Your task to perform on an android device: change the clock display to analog Image 0: 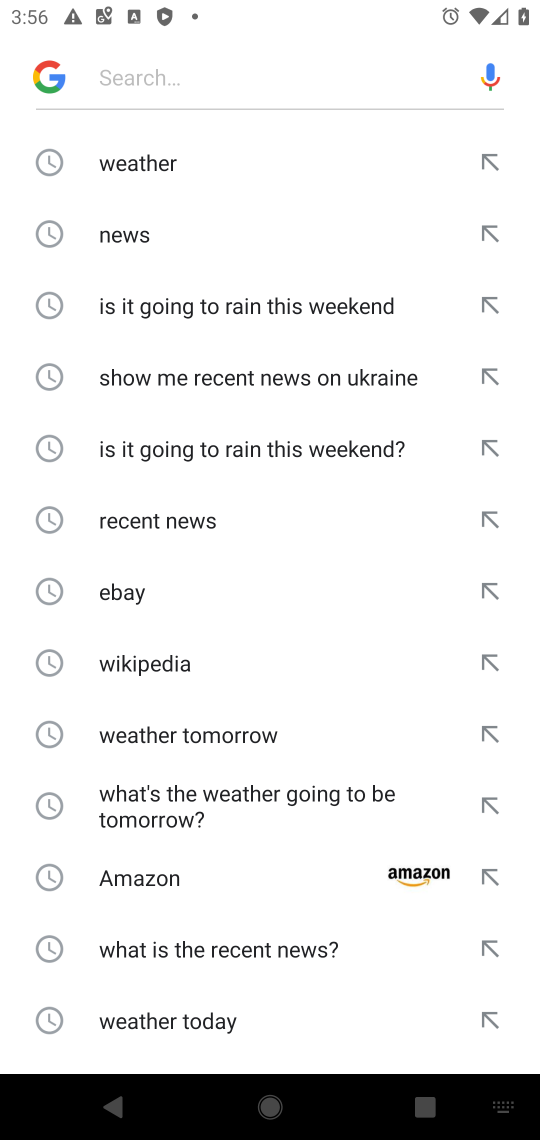
Step 0: press back button
Your task to perform on an android device: change the clock display to analog Image 1: 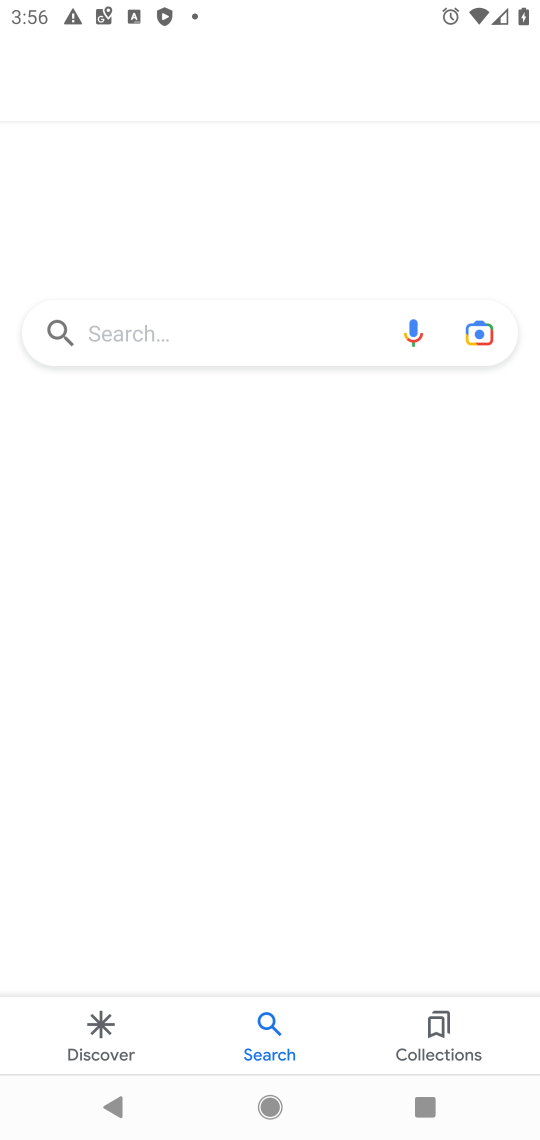
Step 1: press back button
Your task to perform on an android device: change the clock display to analog Image 2: 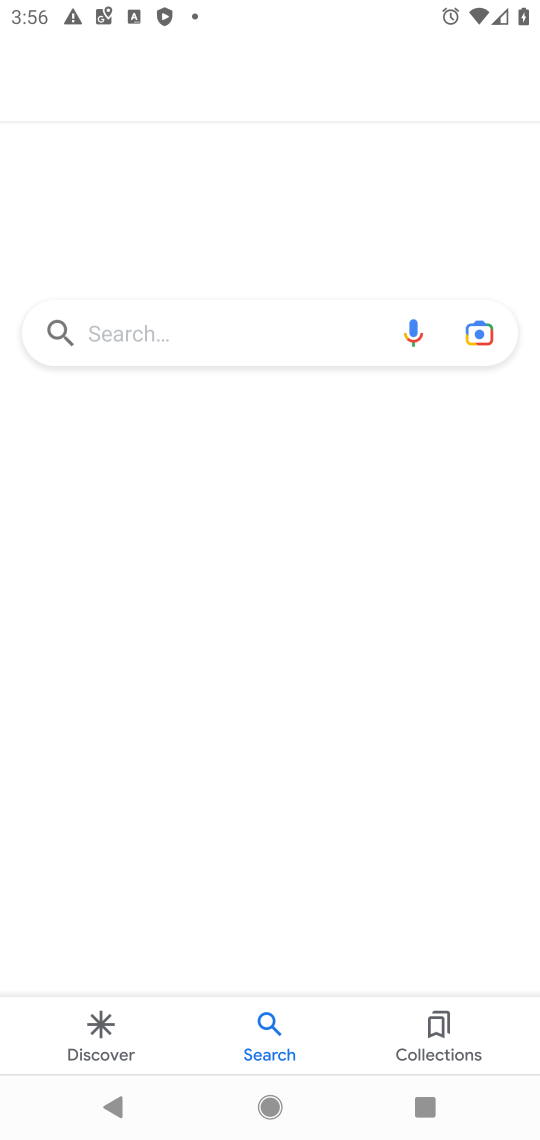
Step 2: press back button
Your task to perform on an android device: change the clock display to analog Image 3: 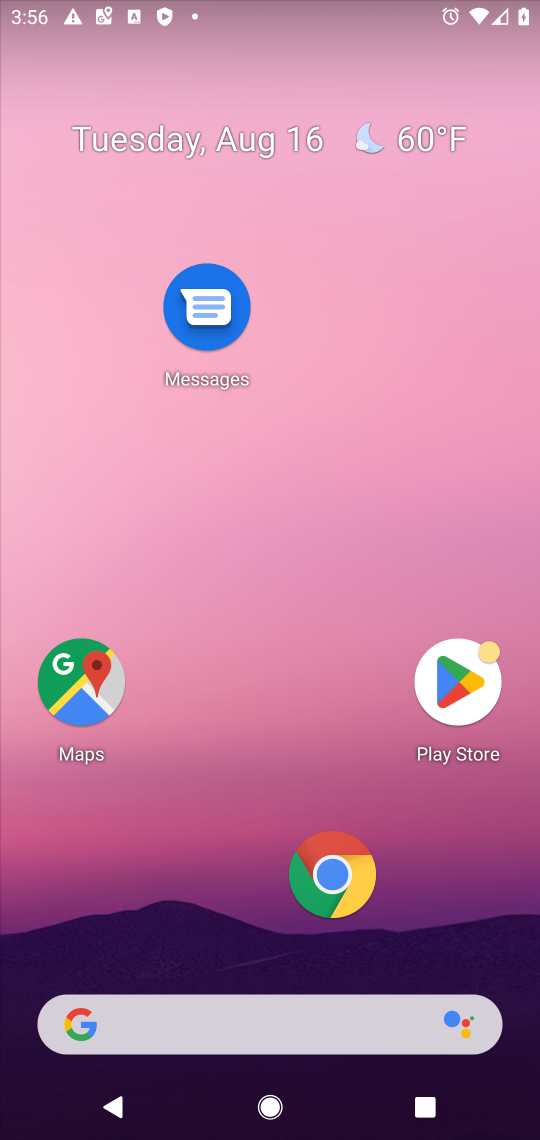
Step 3: press back button
Your task to perform on an android device: change the clock display to analog Image 4: 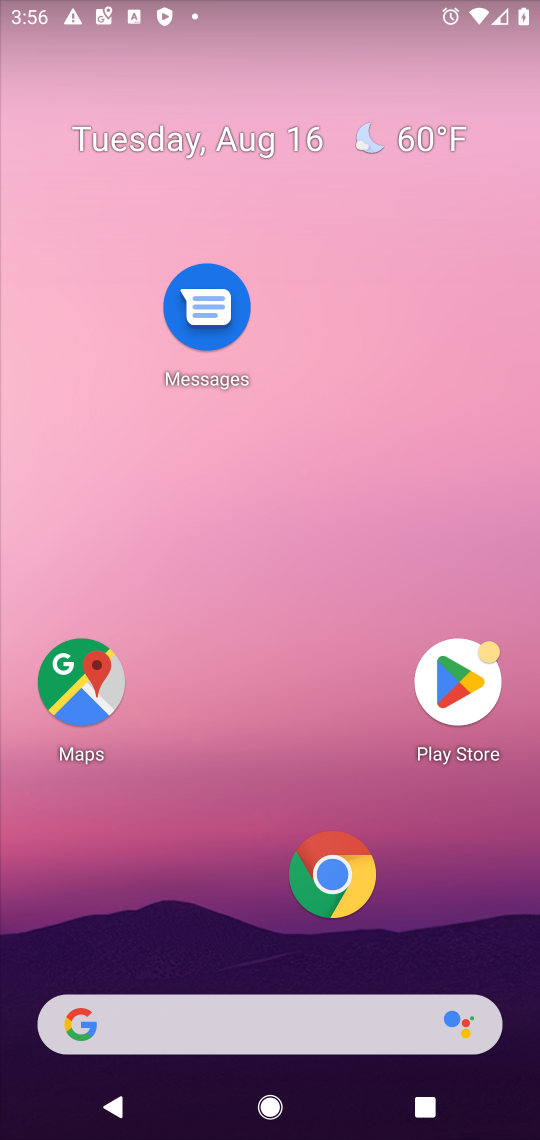
Step 4: drag from (174, 613) to (147, 135)
Your task to perform on an android device: change the clock display to analog Image 5: 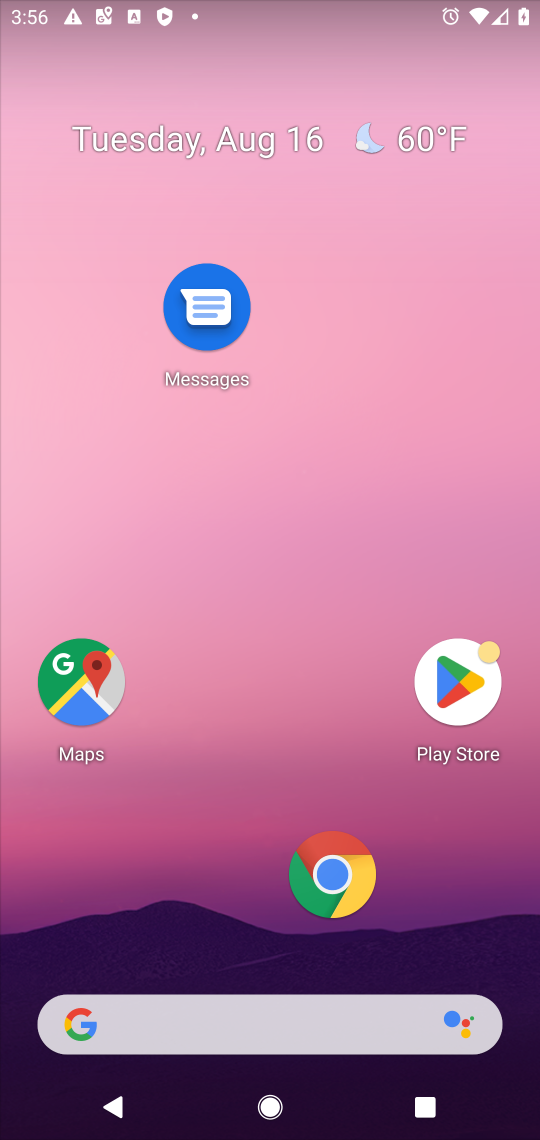
Step 5: drag from (228, 889) to (210, 0)
Your task to perform on an android device: change the clock display to analog Image 6: 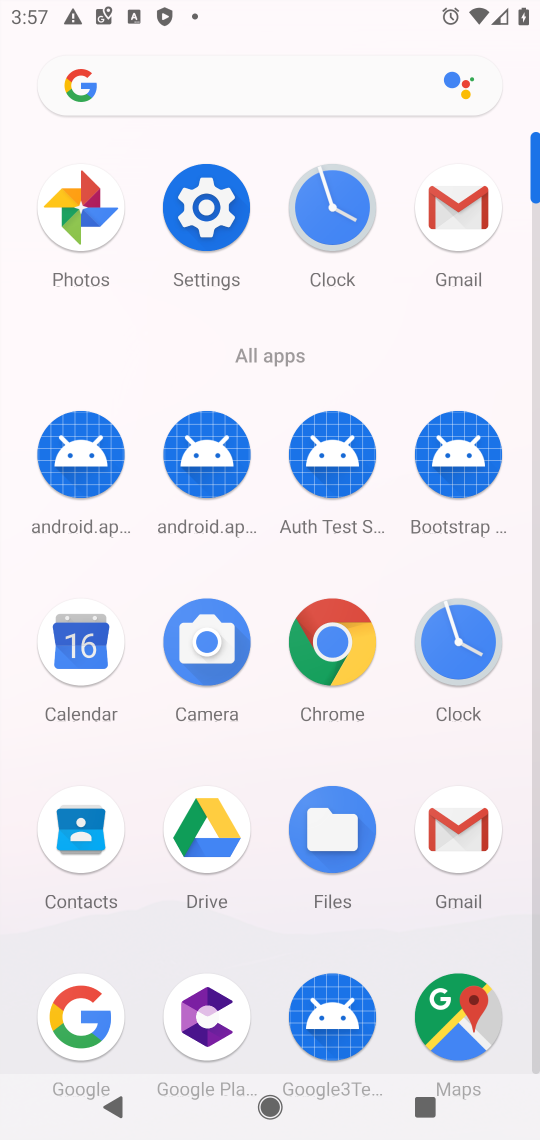
Step 6: click (331, 211)
Your task to perform on an android device: change the clock display to analog Image 7: 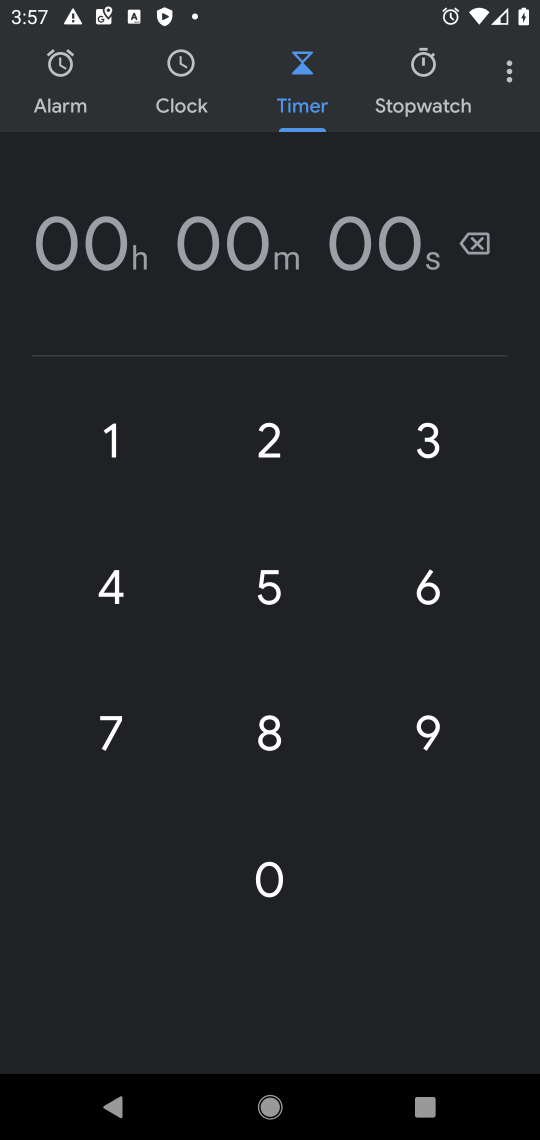
Step 7: click (507, 63)
Your task to perform on an android device: change the clock display to analog Image 8: 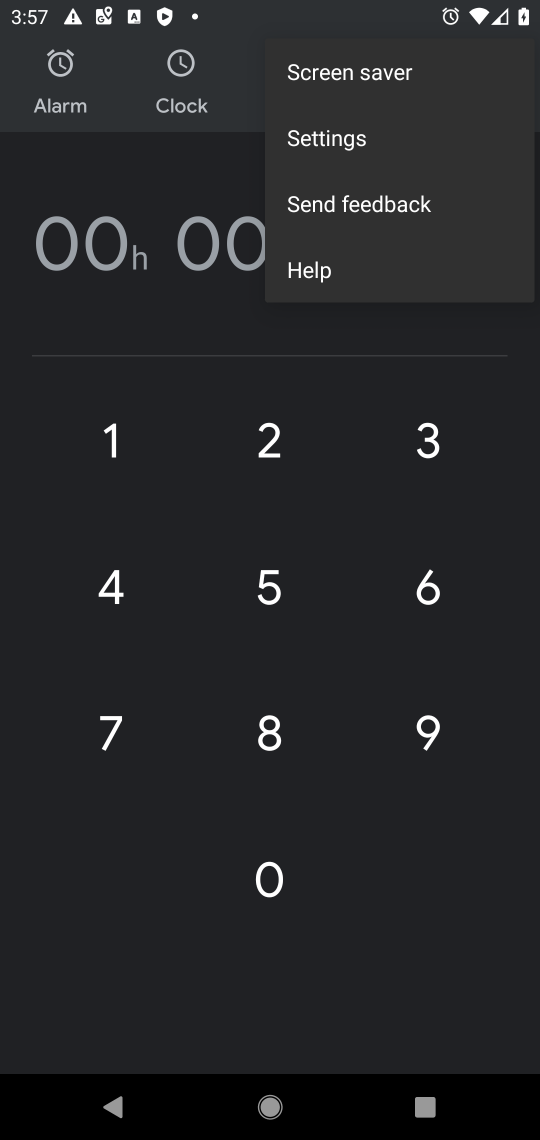
Step 8: click (353, 134)
Your task to perform on an android device: change the clock display to analog Image 9: 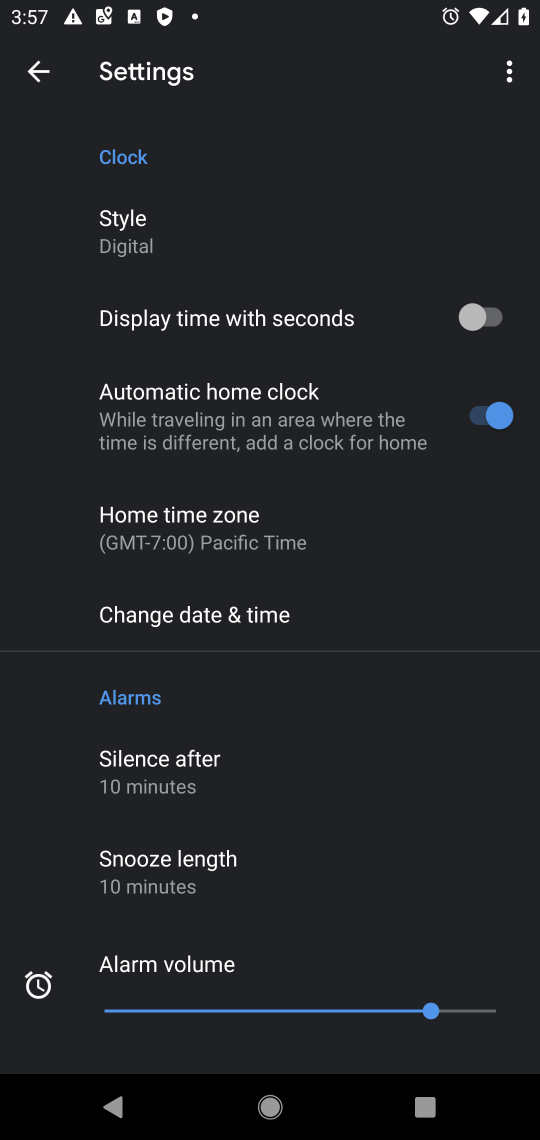
Step 9: drag from (379, 925) to (297, 151)
Your task to perform on an android device: change the clock display to analog Image 10: 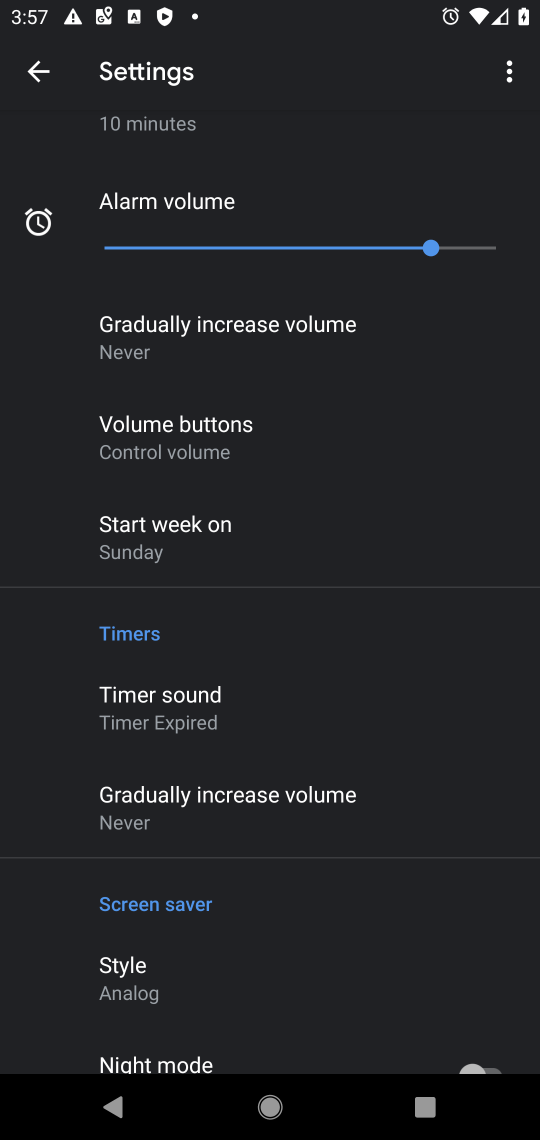
Step 10: click (129, 963)
Your task to perform on an android device: change the clock display to analog Image 11: 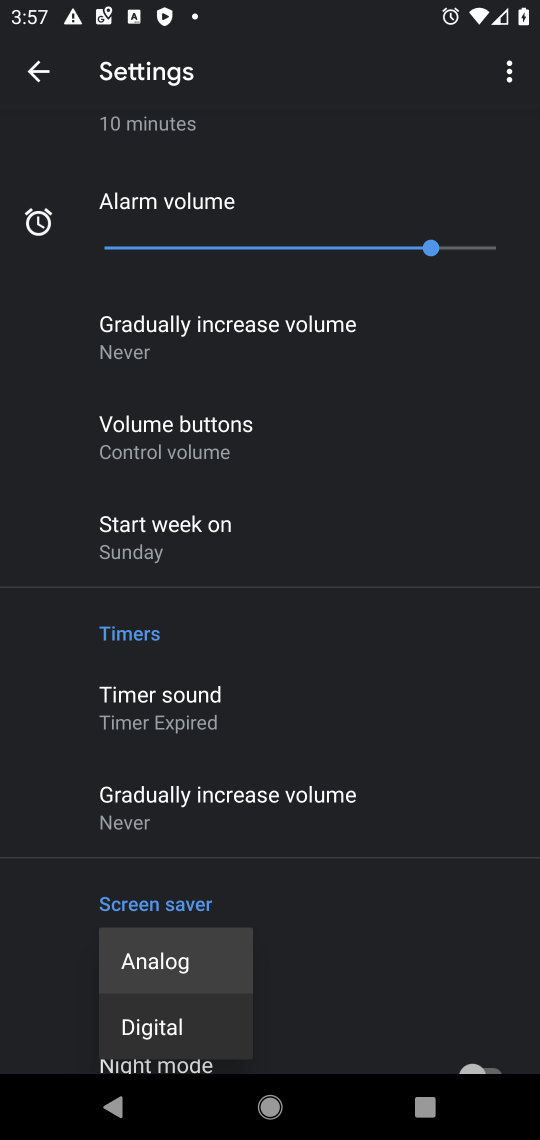
Step 11: click (154, 1037)
Your task to perform on an android device: change the clock display to analog Image 12: 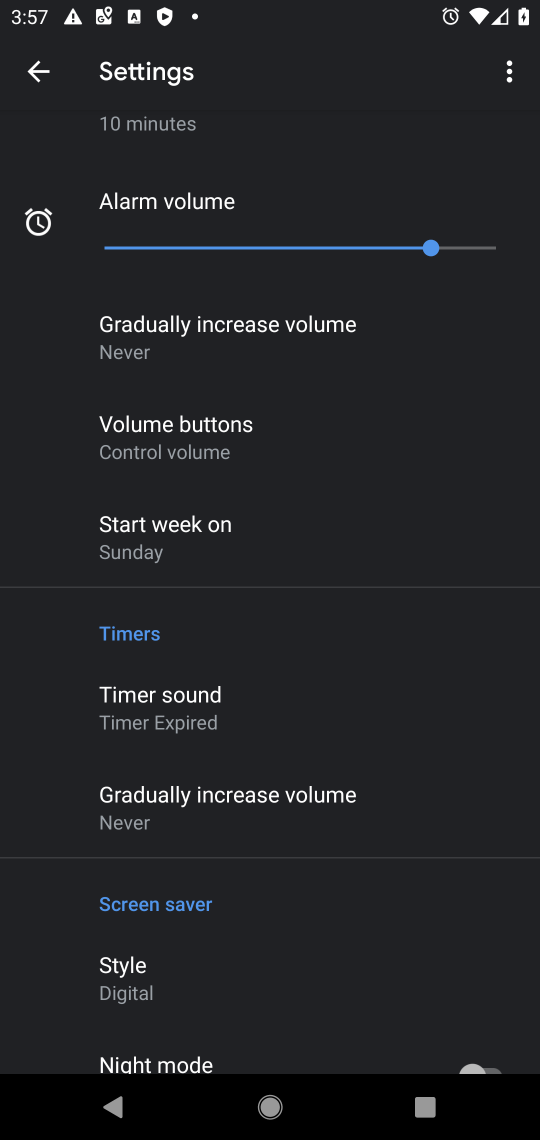
Step 12: task complete